Your task to perform on an android device: snooze an email in the gmail app Image 0: 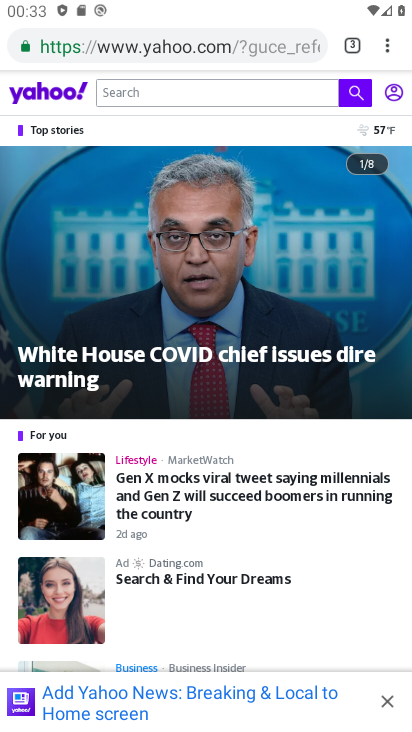
Step 0: press home button
Your task to perform on an android device: snooze an email in the gmail app Image 1: 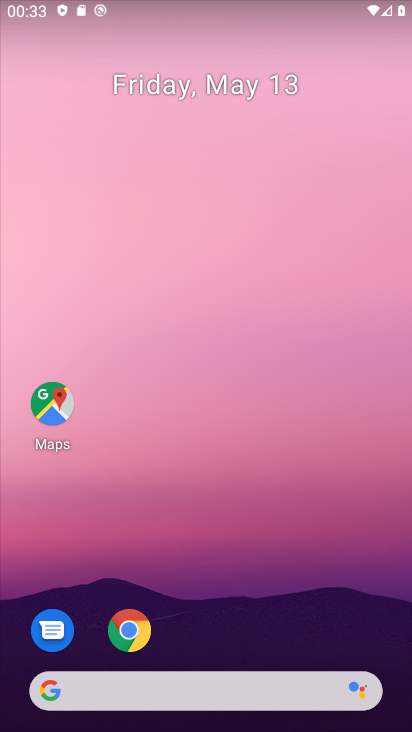
Step 1: drag from (185, 709) to (321, 107)
Your task to perform on an android device: snooze an email in the gmail app Image 2: 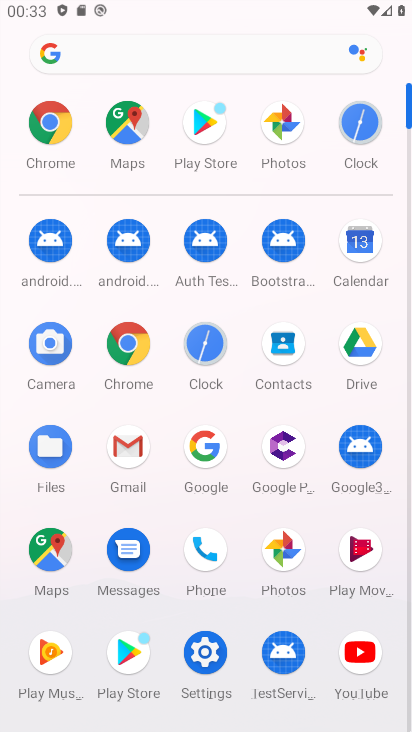
Step 2: click (125, 448)
Your task to perform on an android device: snooze an email in the gmail app Image 3: 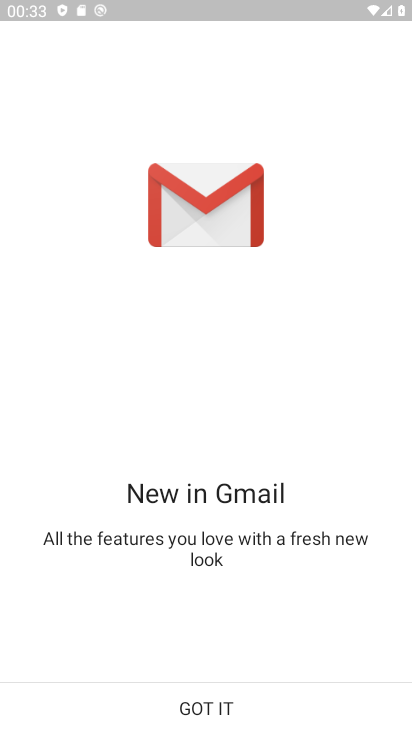
Step 3: click (168, 710)
Your task to perform on an android device: snooze an email in the gmail app Image 4: 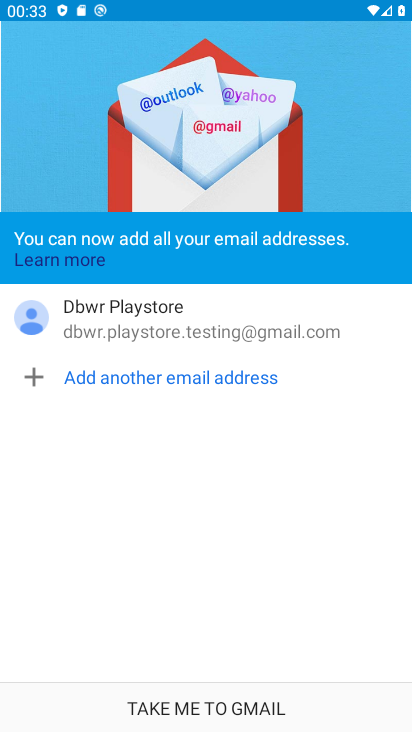
Step 4: click (168, 710)
Your task to perform on an android device: snooze an email in the gmail app Image 5: 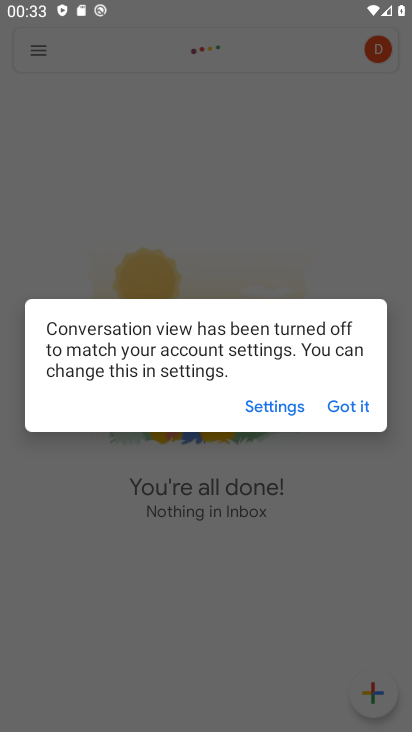
Step 5: click (342, 393)
Your task to perform on an android device: snooze an email in the gmail app Image 6: 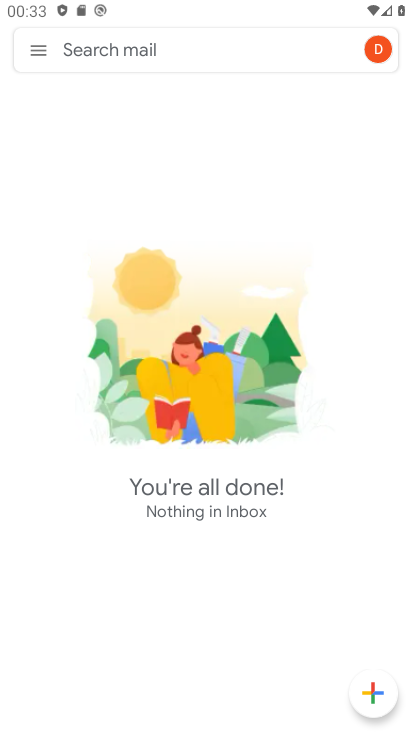
Step 6: click (39, 47)
Your task to perform on an android device: snooze an email in the gmail app Image 7: 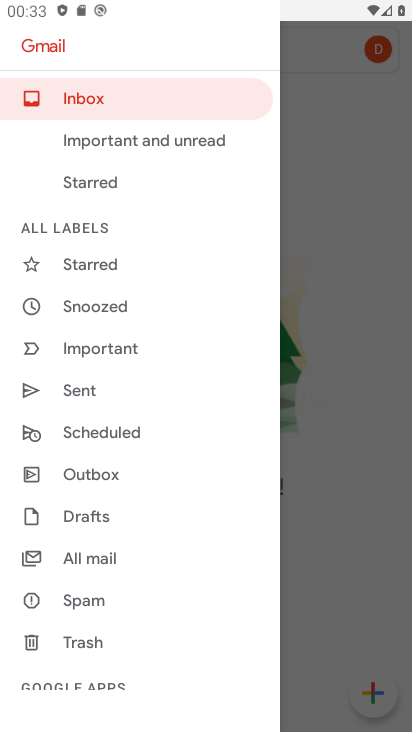
Step 7: click (80, 307)
Your task to perform on an android device: snooze an email in the gmail app Image 8: 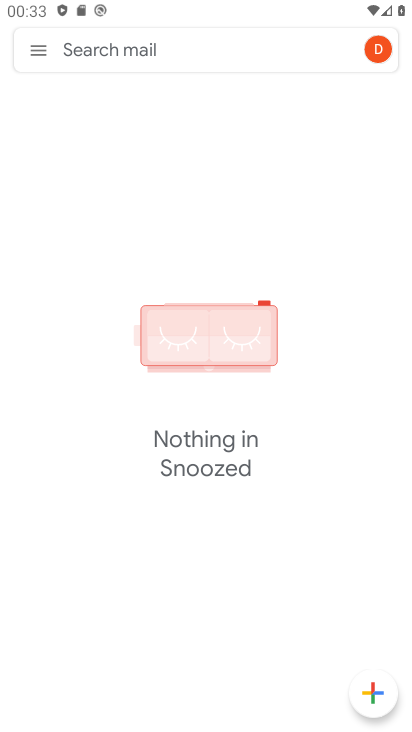
Step 8: task complete